Your task to perform on an android device: stop showing notifications on the lock screen Image 0: 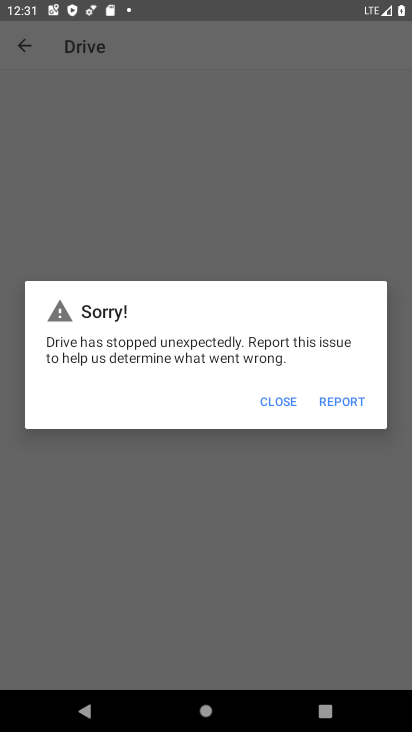
Step 0: press home button
Your task to perform on an android device: stop showing notifications on the lock screen Image 1: 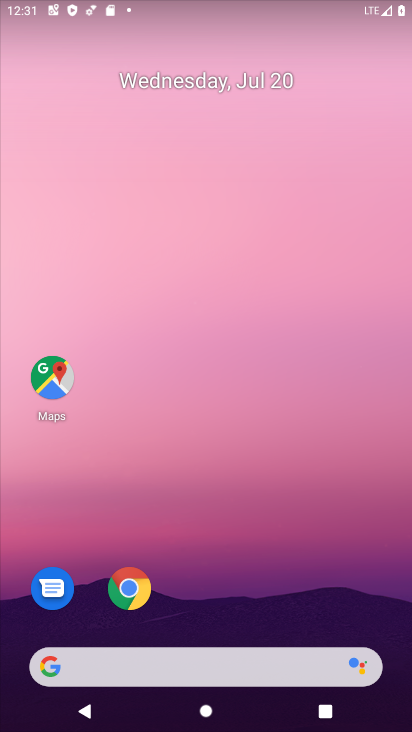
Step 1: drag from (384, 654) to (300, 153)
Your task to perform on an android device: stop showing notifications on the lock screen Image 2: 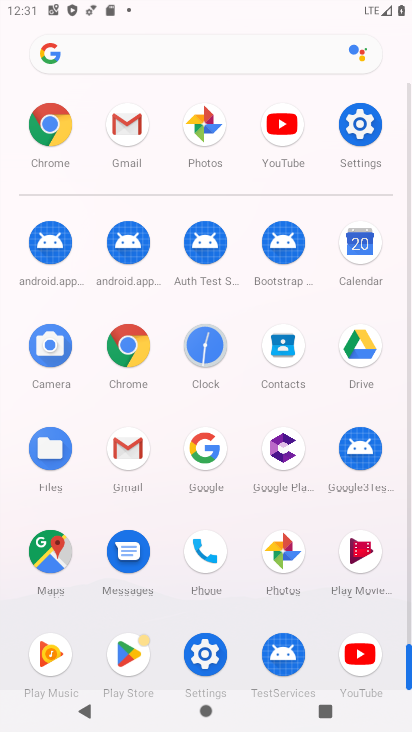
Step 2: click (199, 650)
Your task to perform on an android device: stop showing notifications on the lock screen Image 3: 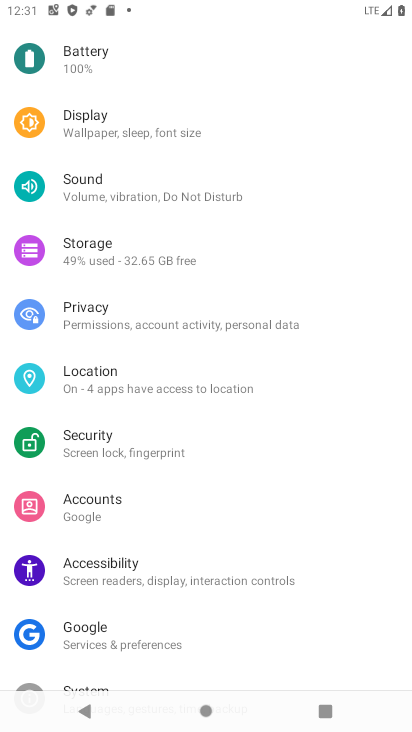
Step 3: drag from (307, 89) to (334, 538)
Your task to perform on an android device: stop showing notifications on the lock screen Image 4: 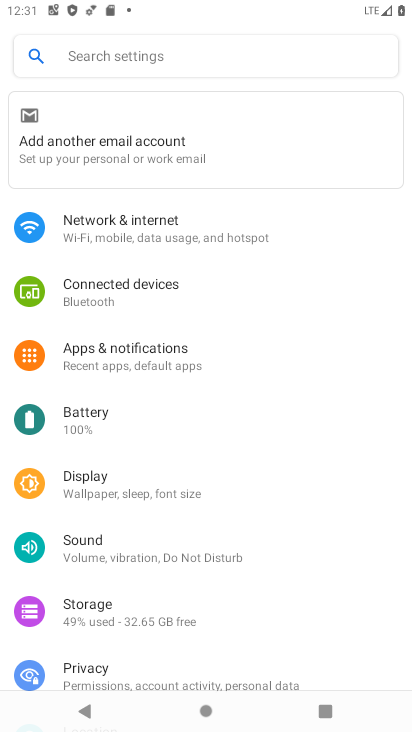
Step 4: click (132, 360)
Your task to perform on an android device: stop showing notifications on the lock screen Image 5: 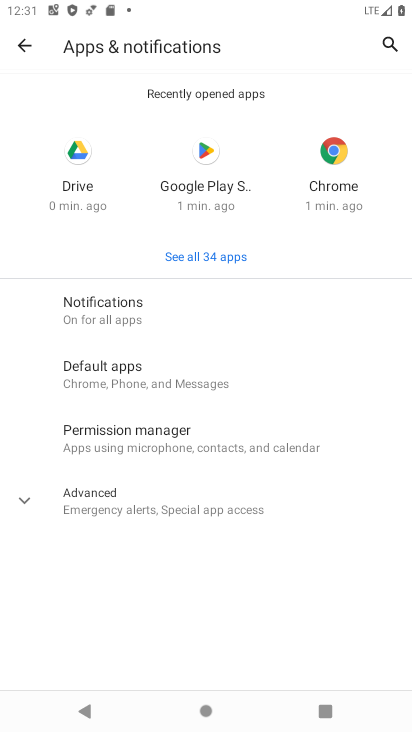
Step 5: click (95, 305)
Your task to perform on an android device: stop showing notifications on the lock screen Image 6: 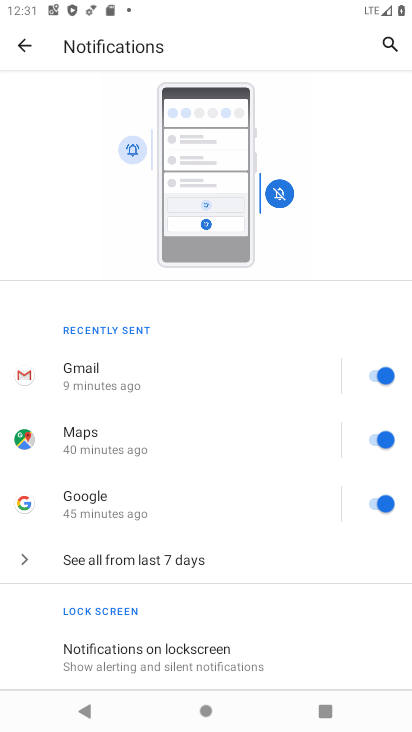
Step 6: click (190, 639)
Your task to perform on an android device: stop showing notifications on the lock screen Image 7: 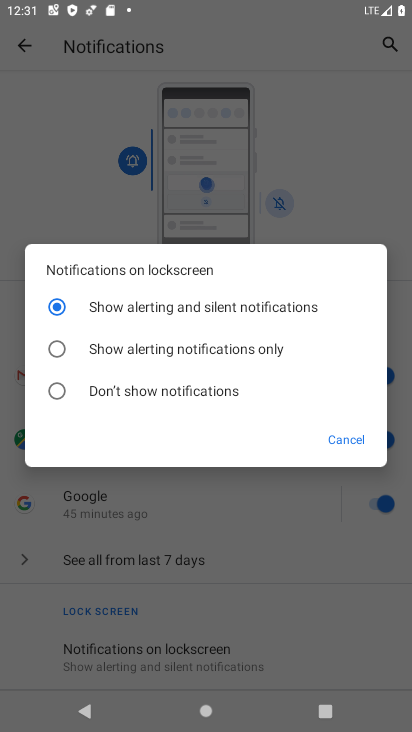
Step 7: click (91, 389)
Your task to perform on an android device: stop showing notifications on the lock screen Image 8: 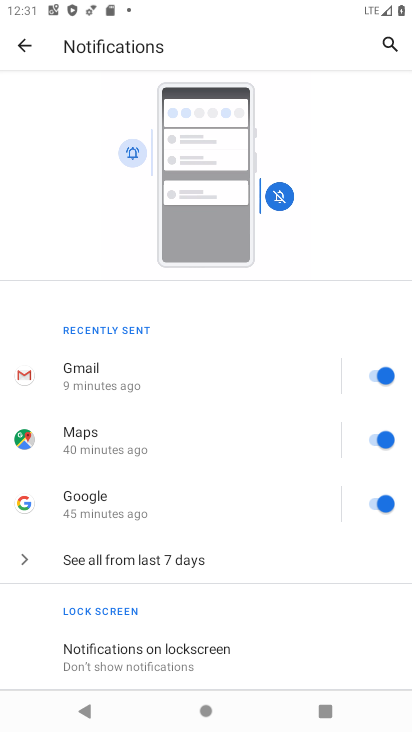
Step 8: task complete